Your task to perform on an android device: Open Youtube and go to the subscriptions tab Image 0: 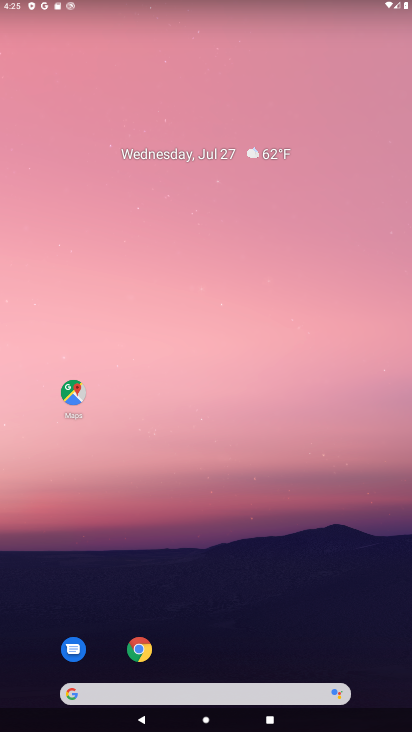
Step 0: drag from (279, 600) to (288, 149)
Your task to perform on an android device: Open Youtube and go to the subscriptions tab Image 1: 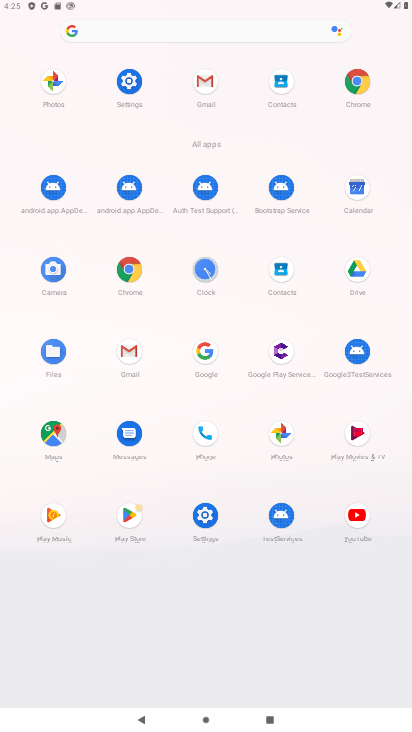
Step 1: click (357, 518)
Your task to perform on an android device: Open Youtube and go to the subscriptions tab Image 2: 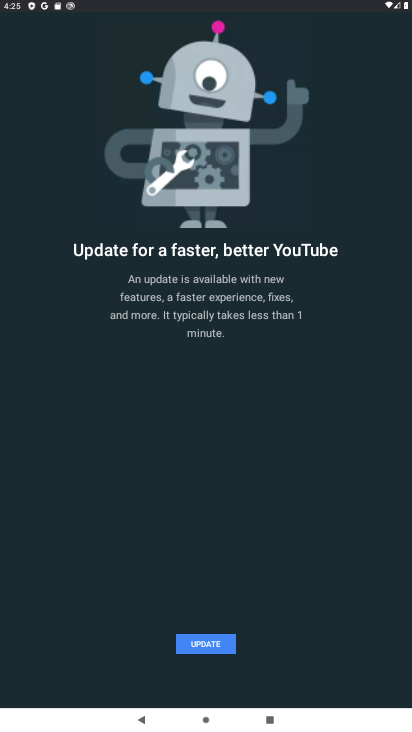
Step 2: task complete